Your task to perform on an android device: Open calendar and show me the first week of next month Image 0: 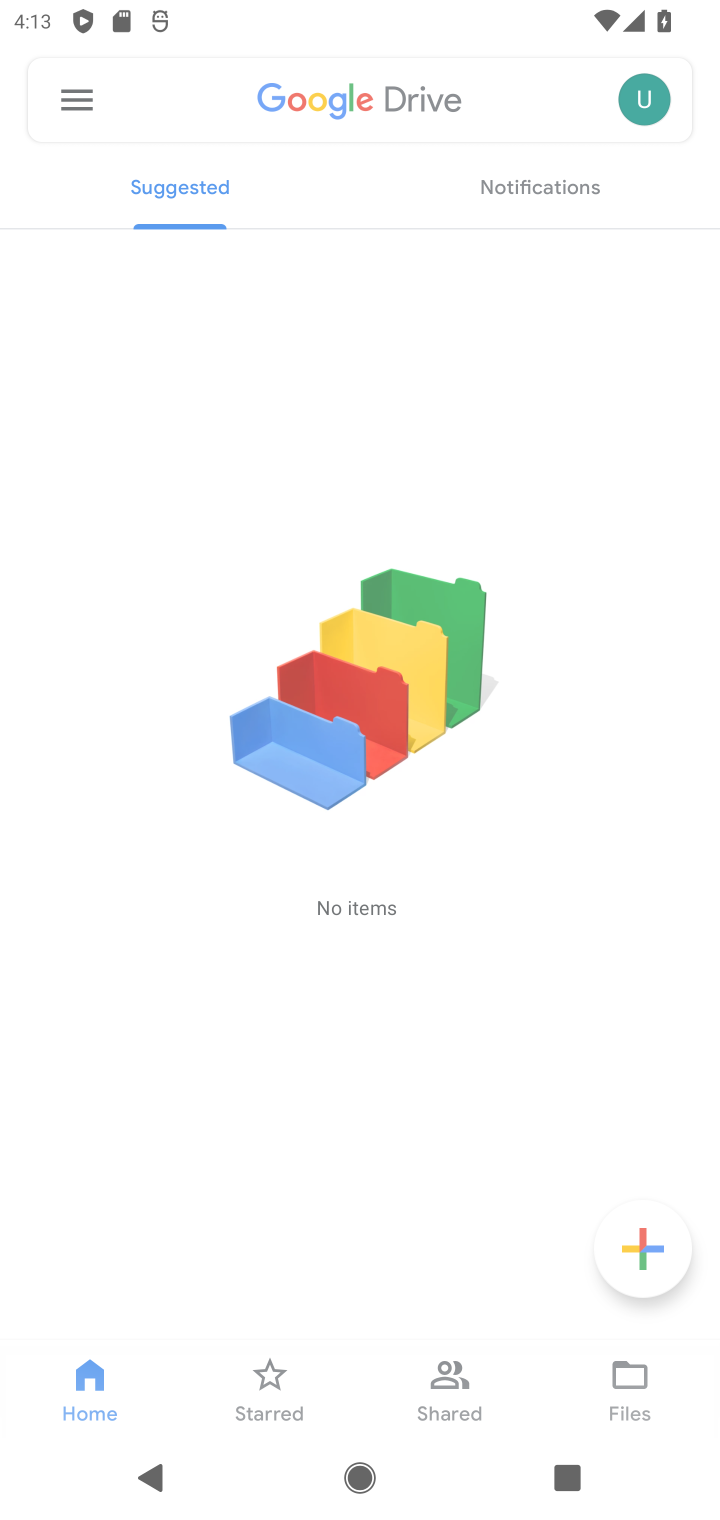
Step 0: press home button
Your task to perform on an android device: Open calendar and show me the first week of next month Image 1: 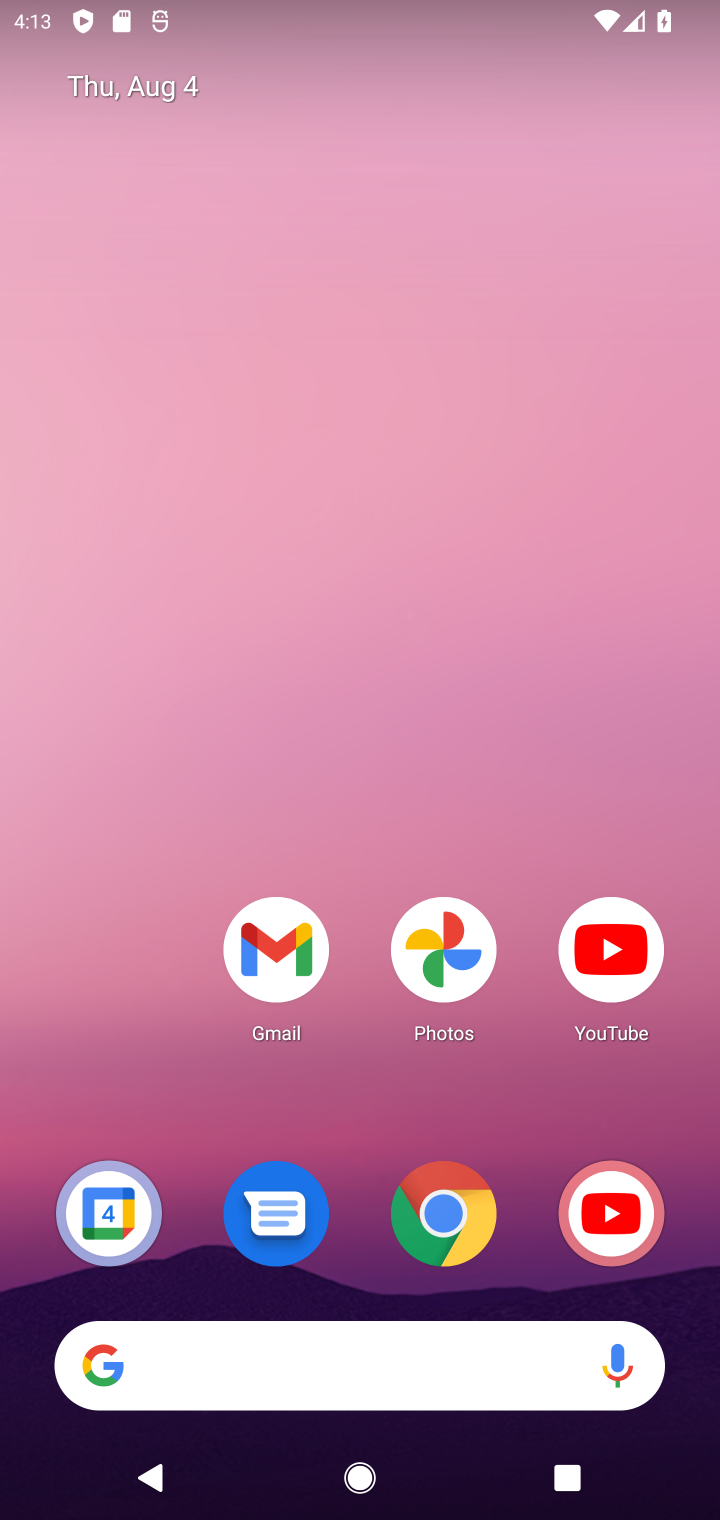
Step 1: drag from (173, 1100) to (250, 246)
Your task to perform on an android device: Open calendar and show me the first week of next month Image 2: 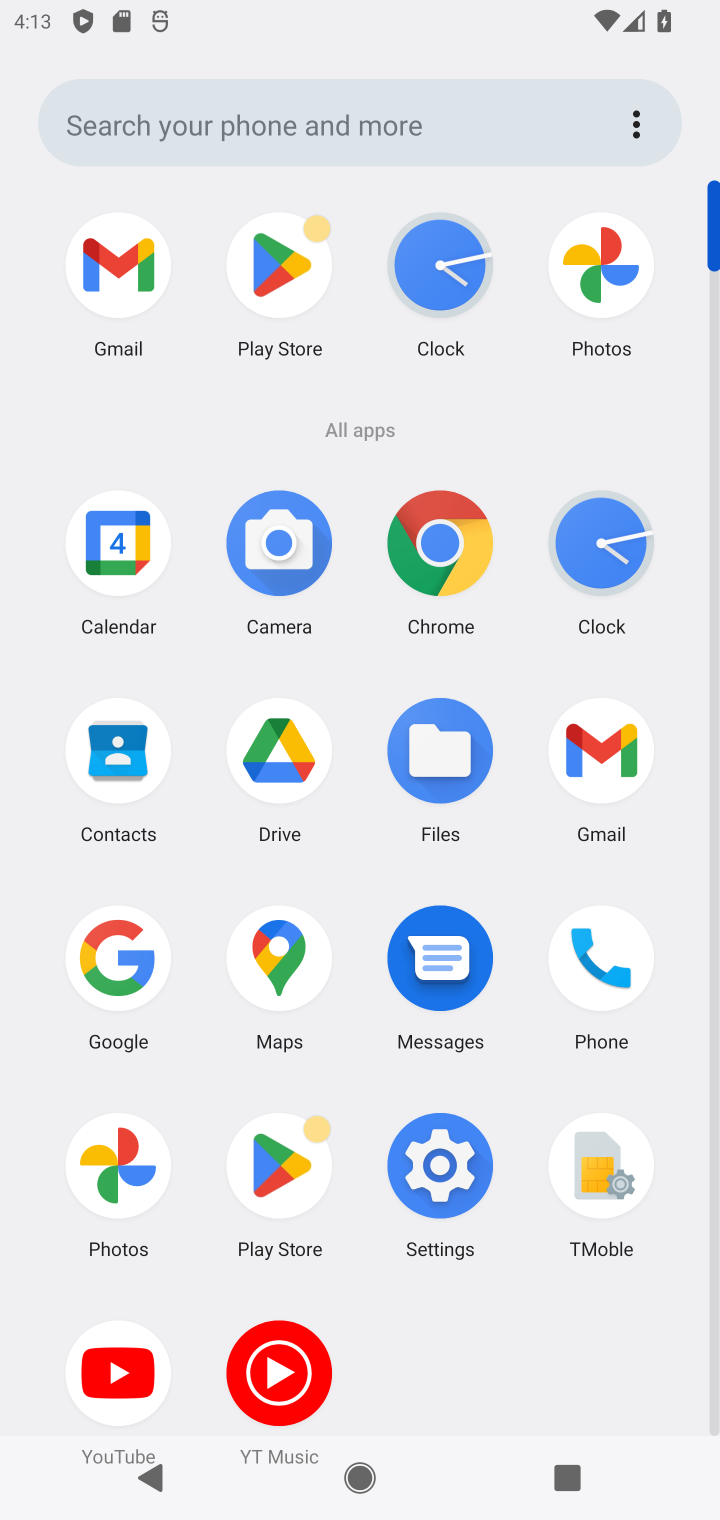
Step 2: click (103, 539)
Your task to perform on an android device: Open calendar and show me the first week of next month Image 3: 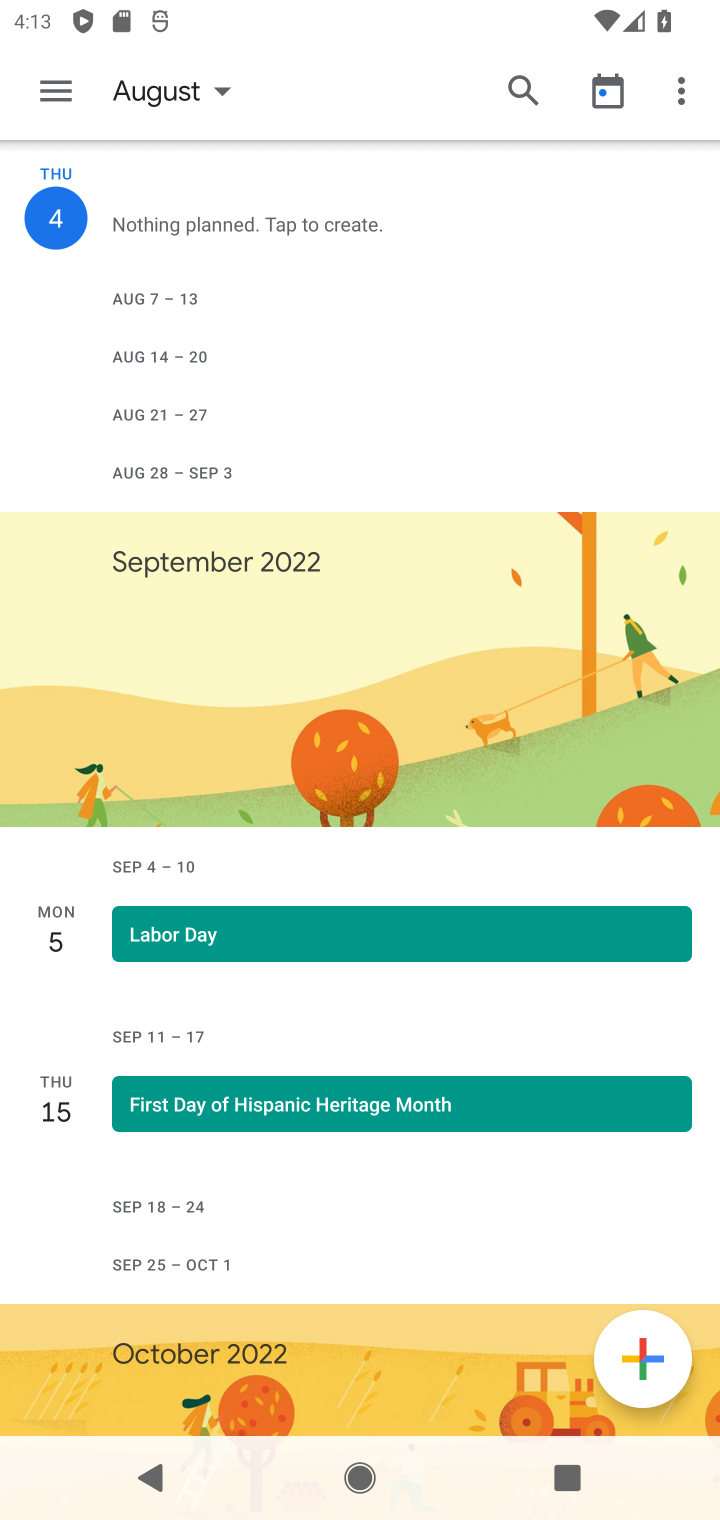
Step 3: click (208, 75)
Your task to perform on an android device: Open calendar and show me the first week of next month Image 4: 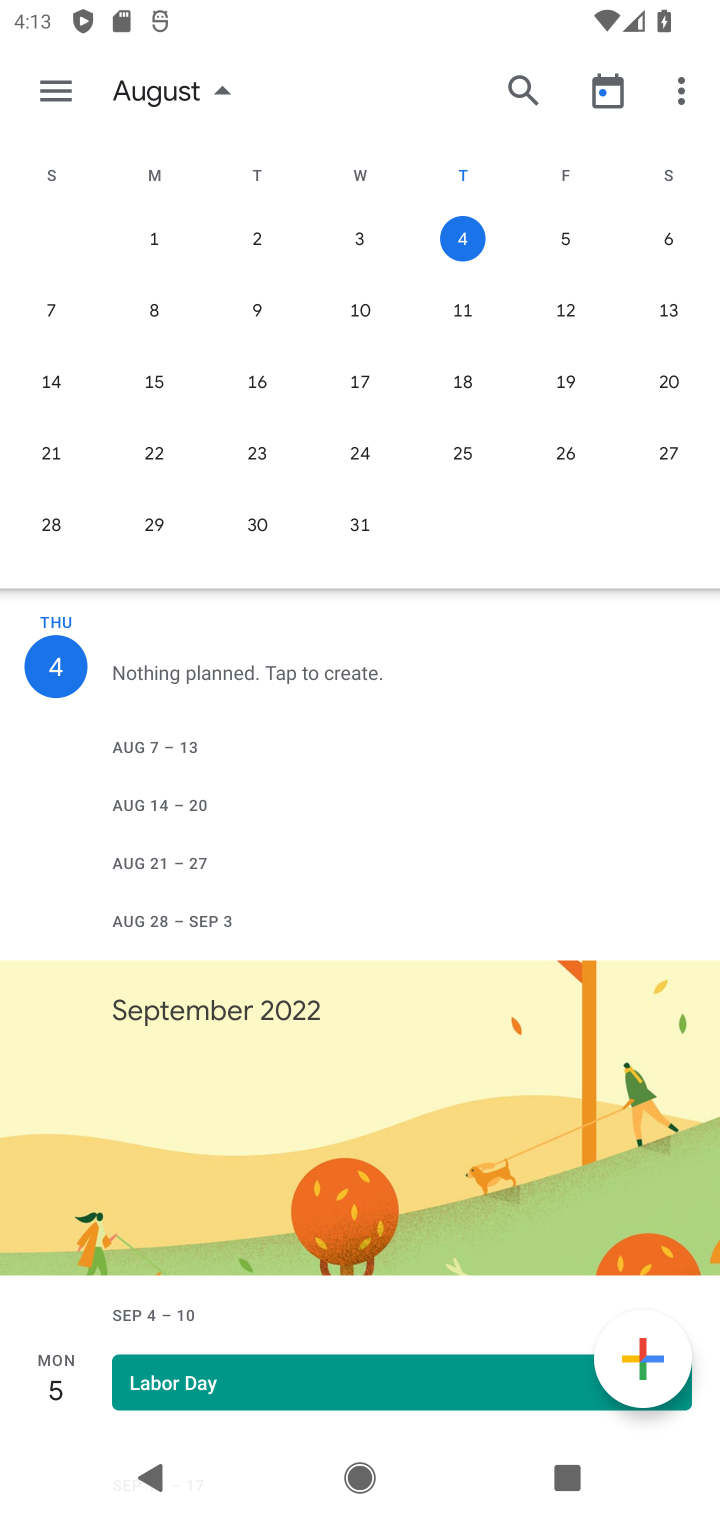
Step 4: task complete